Your task to perform on an android device: What's the weather going to be tomorrow? Image 0: 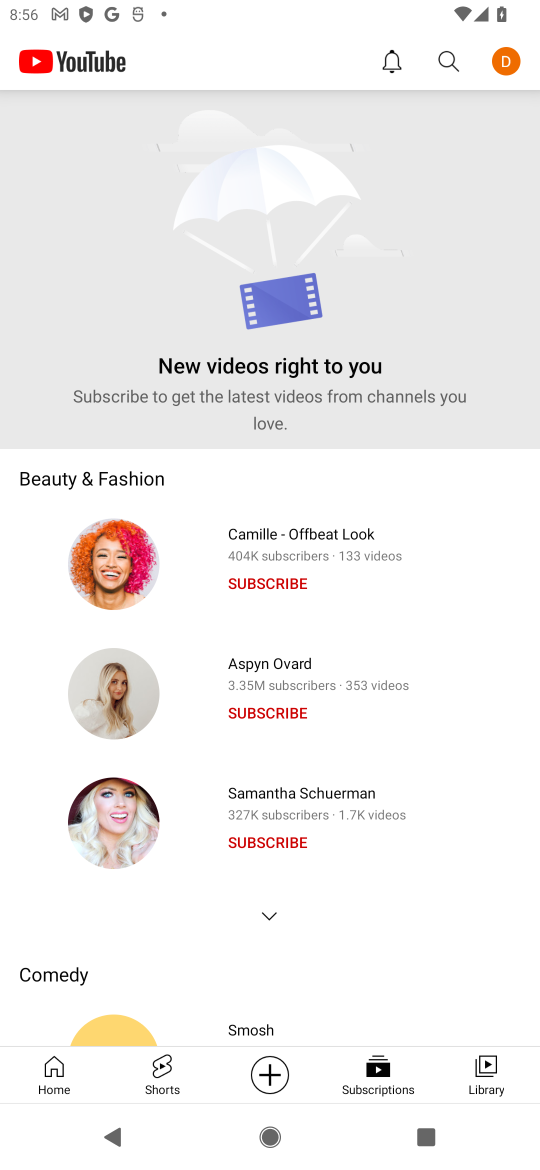
Step 0: press back button
Your task to perform on an android device: What's the weather going to be tomorrow? Image 1: 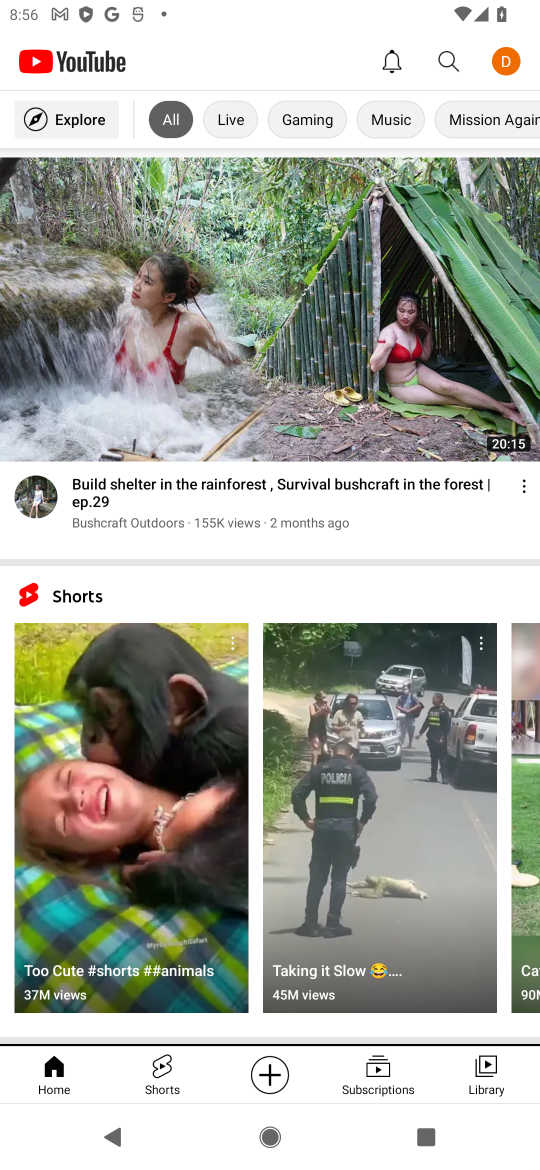
Step 1: press back button
Your task to perform on an android device: What's the weather going to be tomorrow? Image 2: 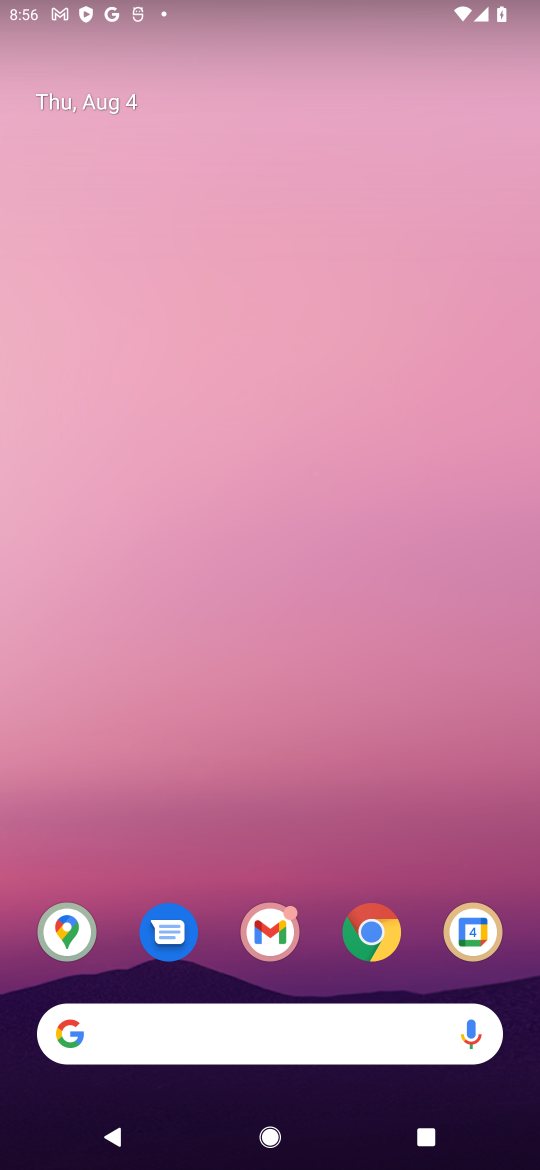
Step 2: click (236, 1049)
Your task to perform on an android device: What's the weather going to be tomorrow? Image 3: 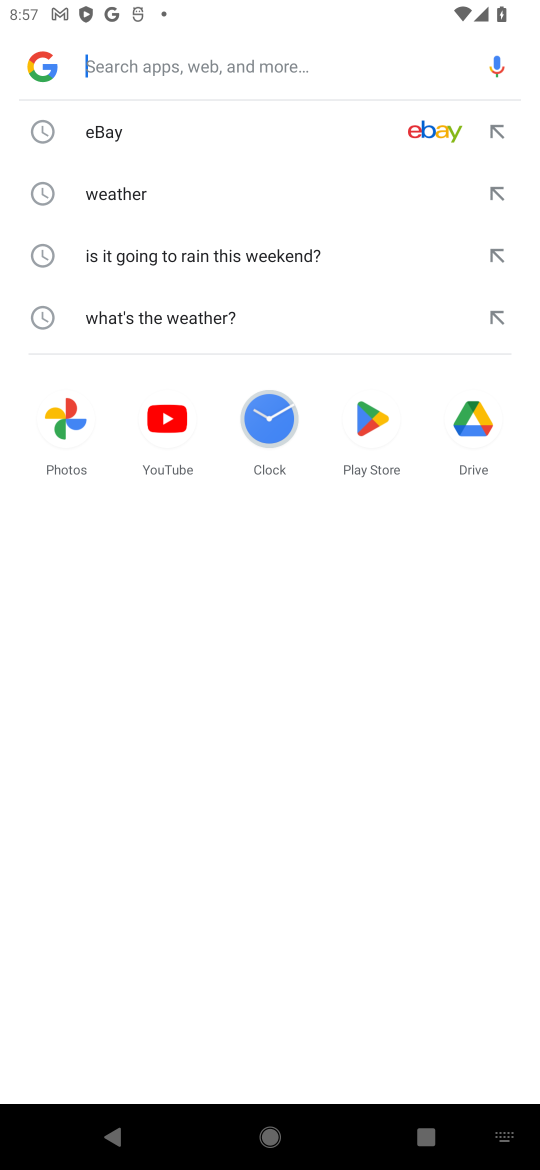
Step 3: click (117, 191)
Your task to perform on an android device: What's the weather going to be tomorrow? Image 4: 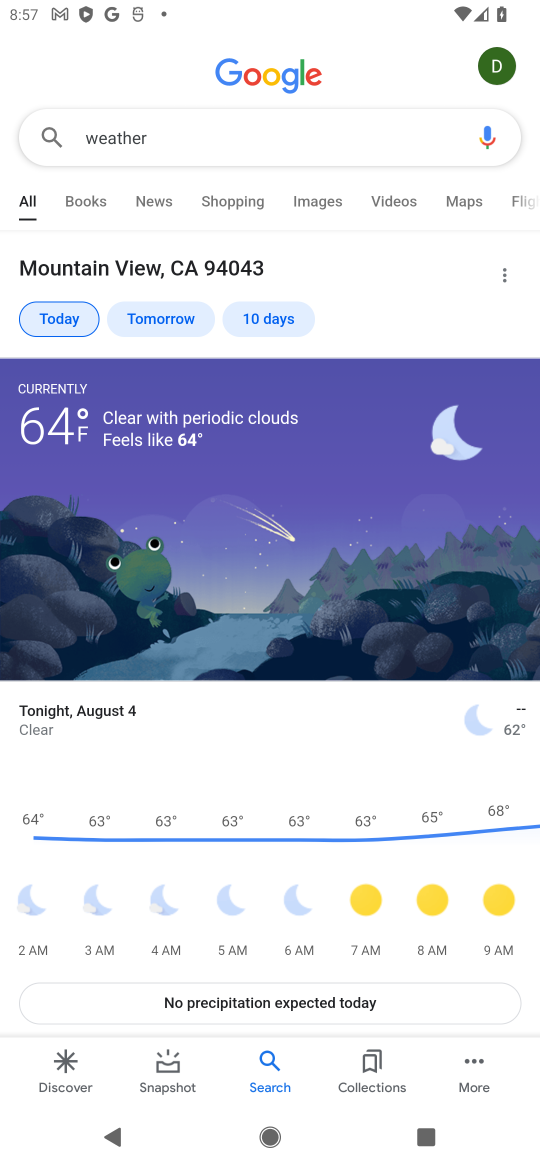
Step 4: click (167, 320)
Your task to perform on an android device: What's the weather going to be tomorrow? Image 5: 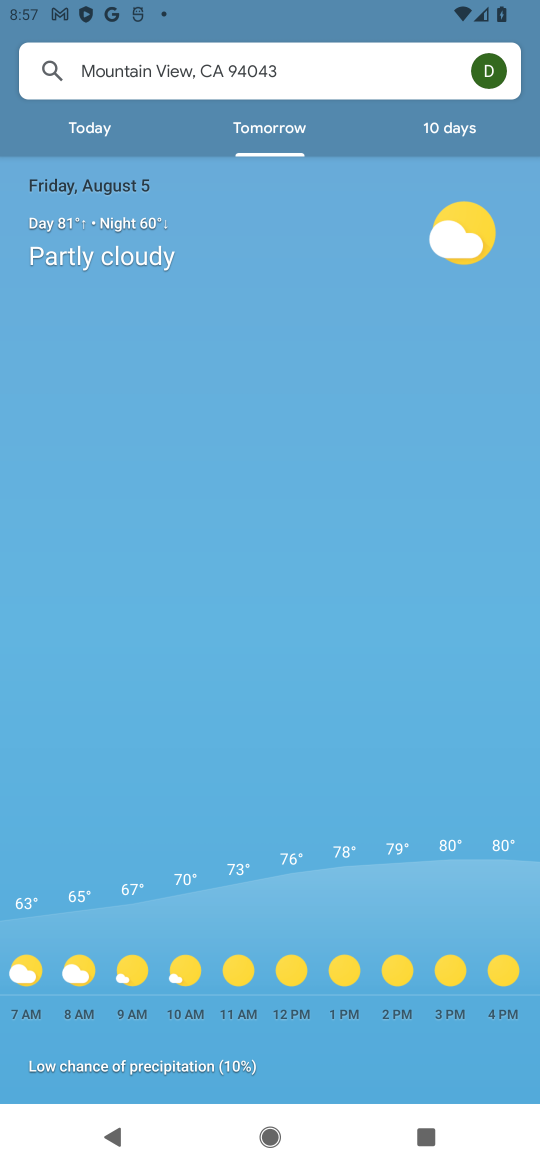
Step 5: task complete